Your task to perform on an android device: Open Maps and search for coffee Image 0: 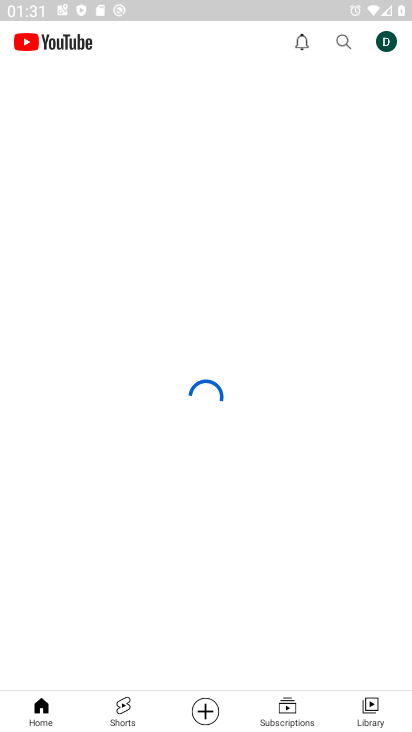
Step 0: drag from (295, 688) to (255, 346)
Your task to perform on an android device: Open Maps and search for coffee Image 1: 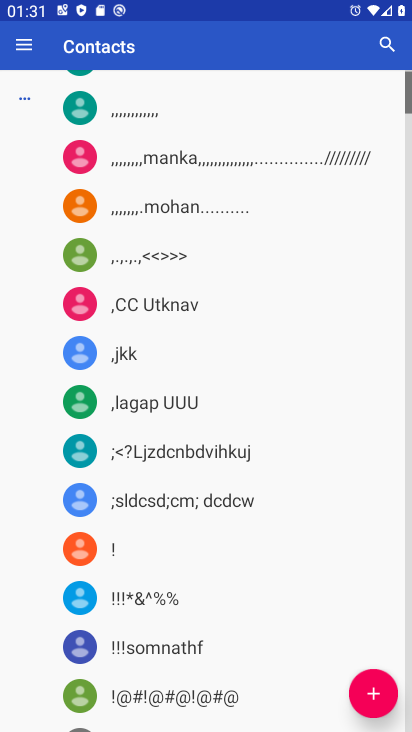
Step 1: press home button
Your task to perform on an android device: Open Maps and search for coffee Image 2: 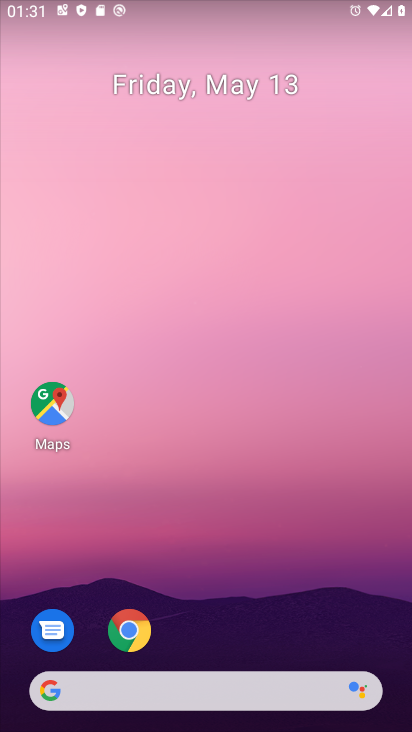
Step 2: drag from (212, 711) to (222, 237)
Your task to perform on an android device: Open Maps and search for coffee Image 3: 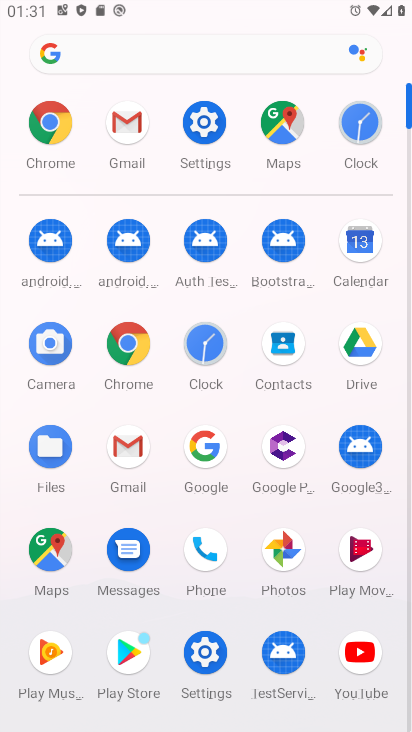
Step 3: click (59, 548)
Your task to perform on an android device: Open Maps and search for coffee Image 4: 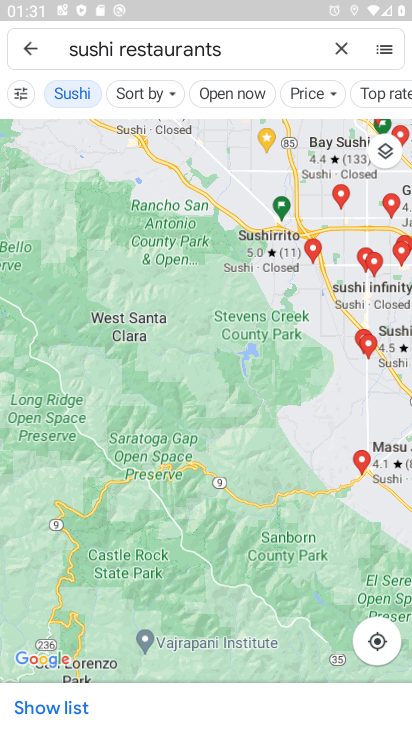
Step 4: click (333, 53)
Your task to perform on an android device: Open Maps and search for coffee Image 5: 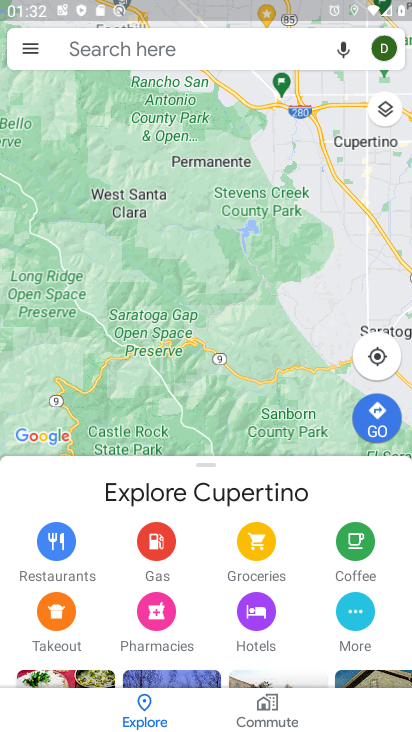
Step 5: click (149, 51)
Your task to perform on an android device: Open Maps and search for coffee Image 6: 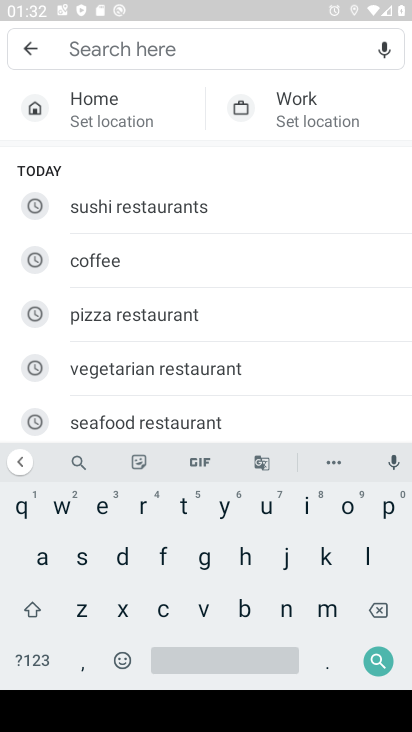
Step 6: click (135, 254)
Your task to perform on an android device: Open Maps and search for coffee Image 7: 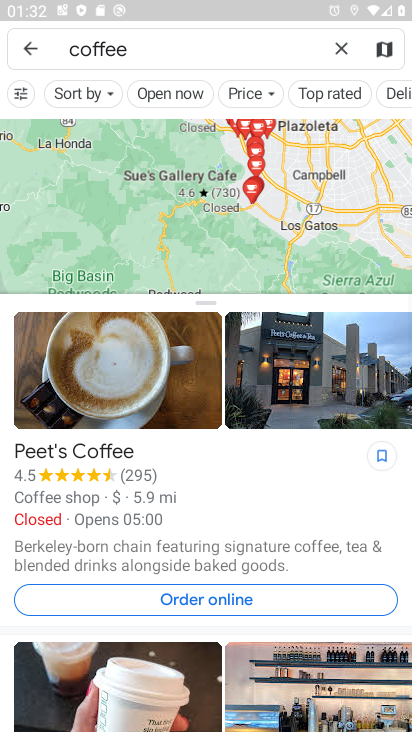
Step 7: task complete